Your task to perform on an android device: see sites visited before in the chrome app Image 0: 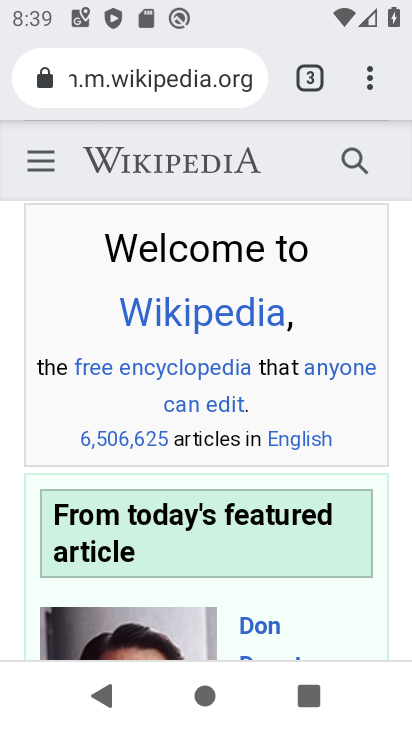
Step 0: press home button
Your task to perform on an android device: see sites visited before in the chrome app Image 1: 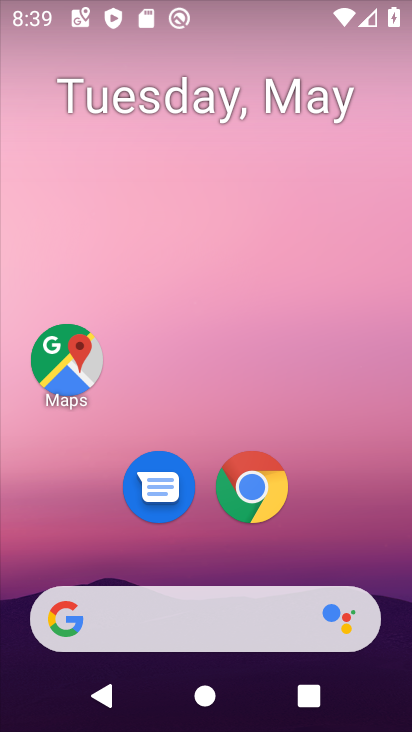
Step 1: drag from (367, 516) to (367, 148)
Your task to perform on an android device: see sites visited before in the chrome app Image 2: 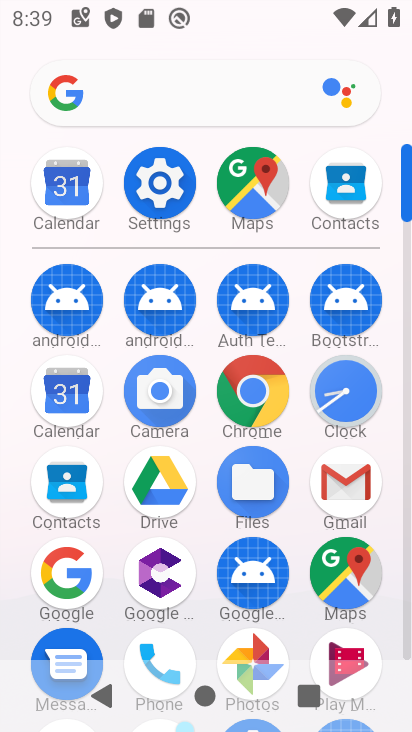
Step 2: click (274, 401)
Your task to perform on an android device: see sites visited before in the chrome app Image 3: 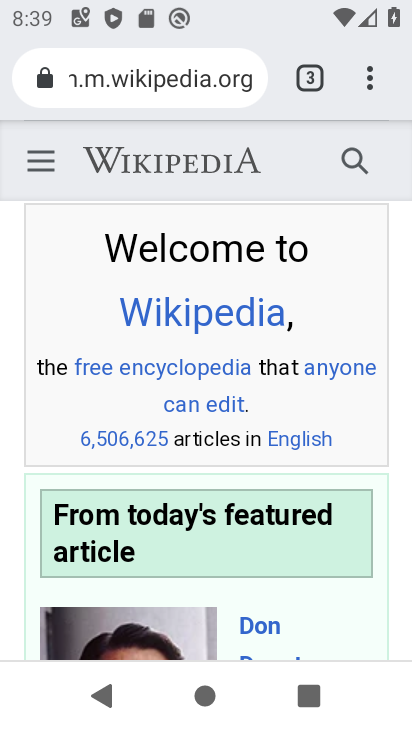
Step 3: click (364, 86)
Your task to perform on an android device: see sites visited before in the chrome app Image 4: 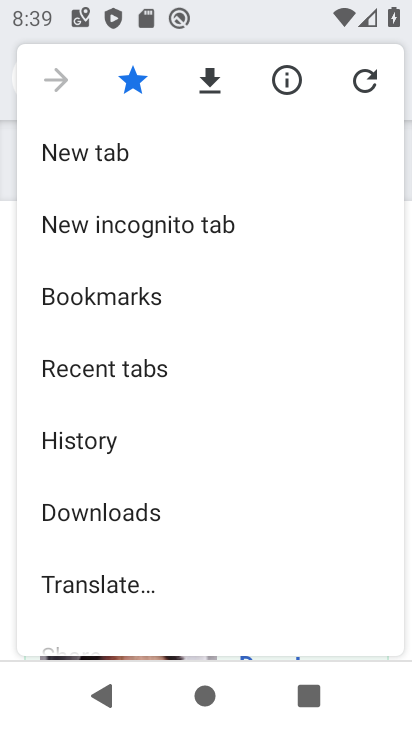
Step 4: click (141, 448)
Your task to perform on an android device: see sites visited before in the chrome app Image 5: 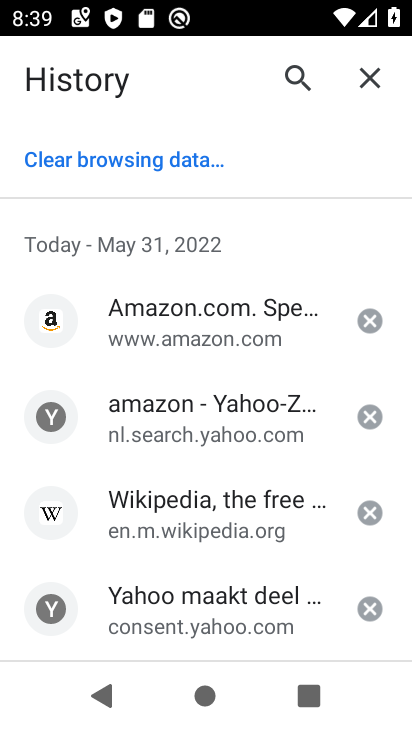
Step 5: task complete